Your task to perform on an android device: Open calendar and show me the third week of next month Image 0: 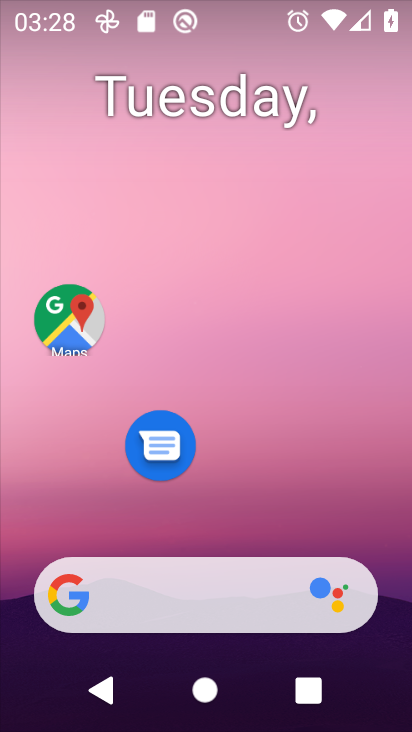
Step 0: drag from (255, 517) to (166, 154)
Your task to perform on an android device: Open calendar and show me the third week of next month Image 1: 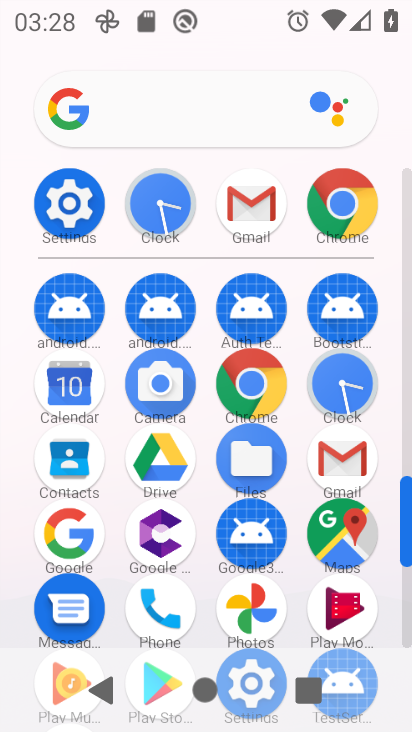
Step 1: click (84, 374)
Your task to perform on an android device: Open calendar and show me the third week of next month Image 2: 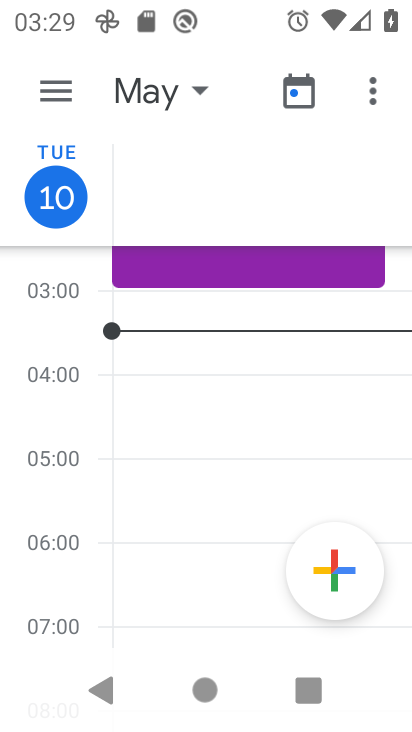
Step 2: click (195, 87)
Your task to perform on an android device: Open calendar and show me the third week of next month Image 3: 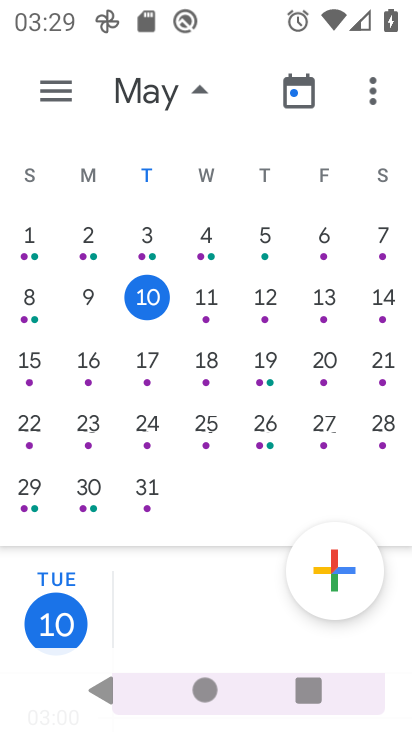
Step 3: drag from (327, 273) to (2, 343)
Your task to perform on an android device: Open calendar and show me the third week of next month Image 4: 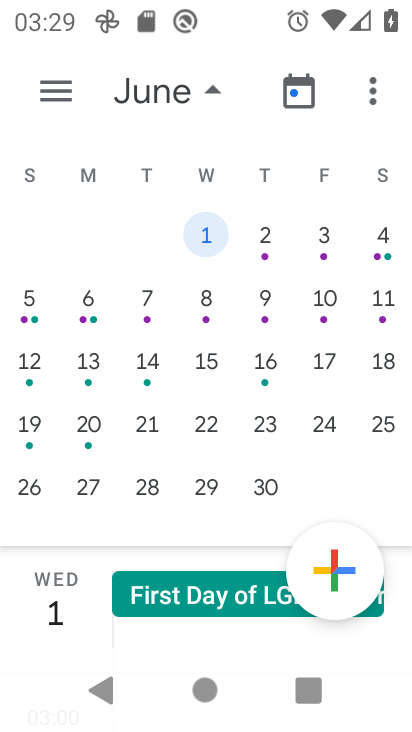
Step 4: click (44, 89)
Your task to perform on an android device: Open calendar and show me the third week of next month Image 5: 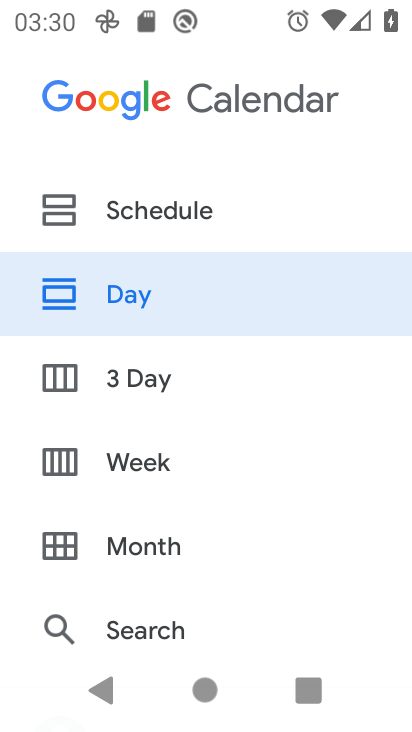
Step 5: click (137, 455)
Your task to perform on an android device: Open calendar and show me the third week of next month Image 6: 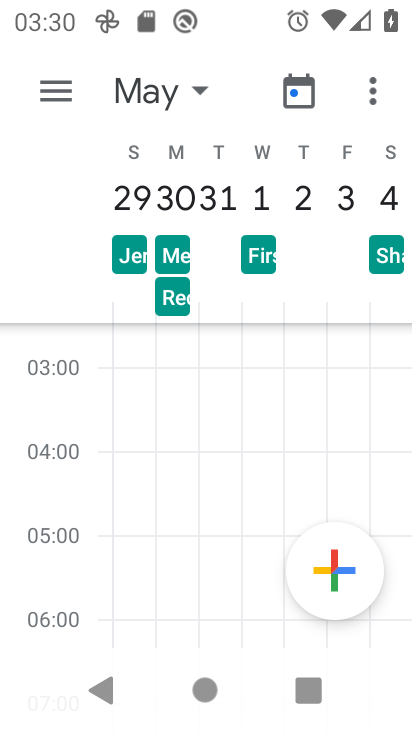
Step 6: click (199, 96)
Your task to perform on an android device: Open calendar and show me the third week of next month Image 7: 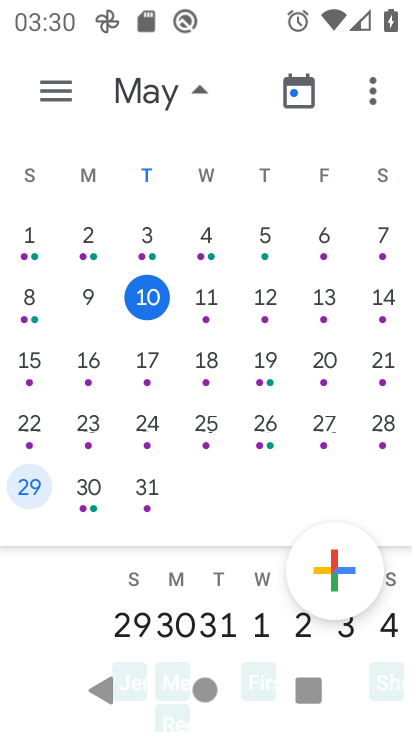
Step 7: click (199, 96)
Your task to perform on an android device: Open calendar and show me the third week of next month Image 8: 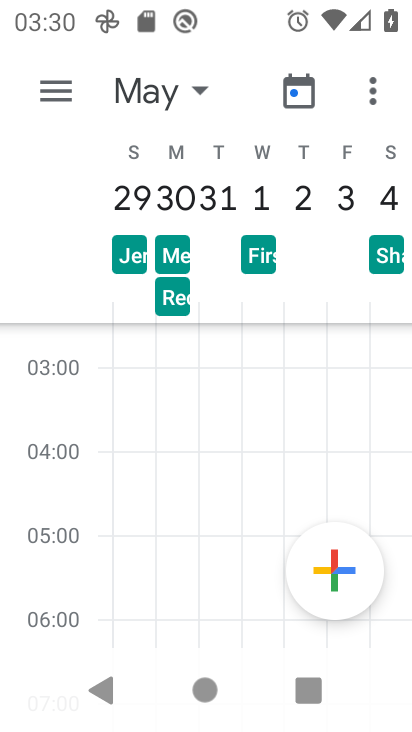
Step 8: click (198, 89)
Your task to perform on an android device: Open calendar and show me the third week of next month Image 9: 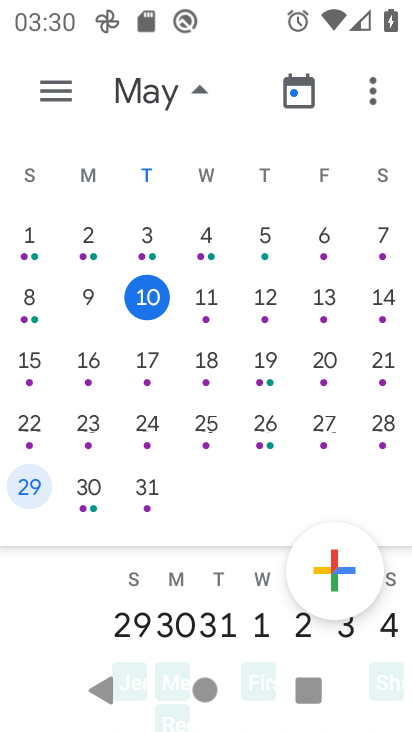
Step 9: drag from (367, 357) to (19, 388)
Your task to perform on an android device: Open calendar and show me the third week of next month Image 10: 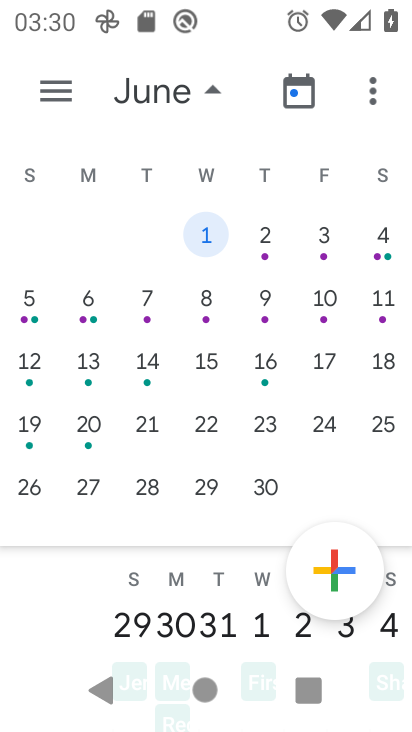
Step 10: click (197, 361)
Your task to perform on an android device: Open calendar and show me the third week of next month Image 11: 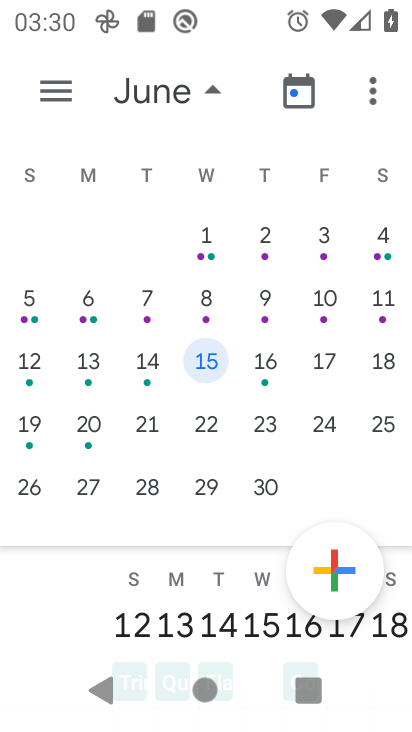
Step 11: task complete